Your task to perform on an android device: Play the new Drake video on YouTube Image 0: 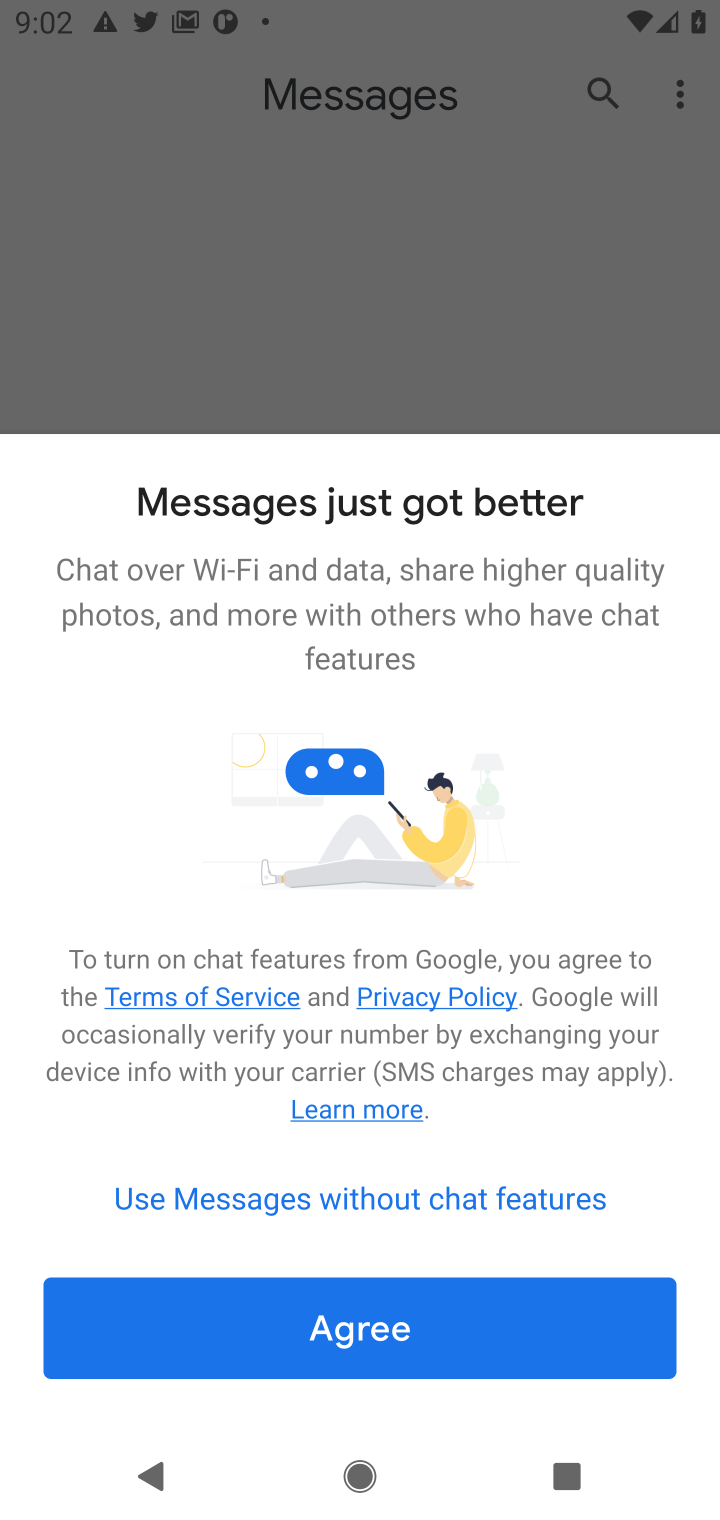
Step 0: press home button
Your task to perform on an android device: Play the new Drake video on YouTube Image 1: 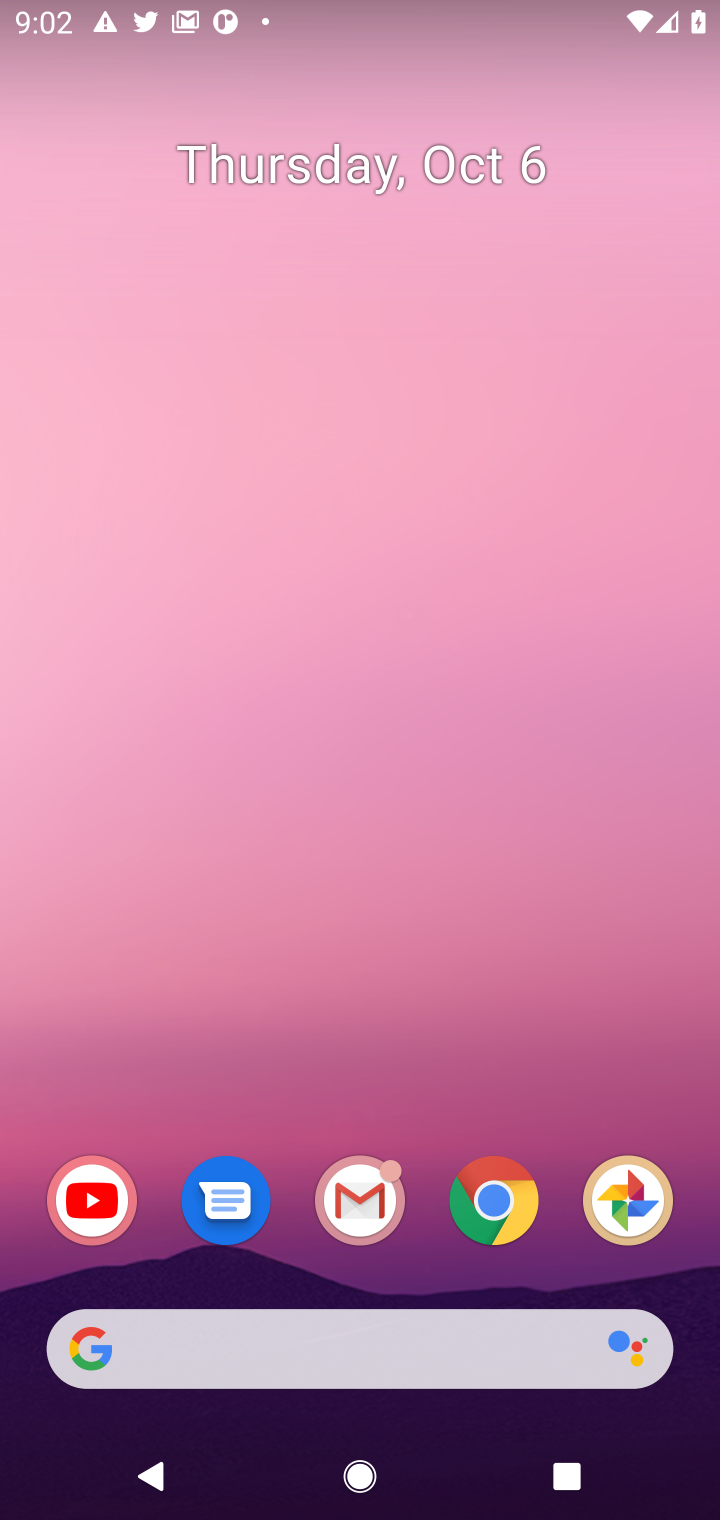
Step 1: click (479, 1187)
Your task to perform on an android device: Play the new Drake video on YouTube Image 2: 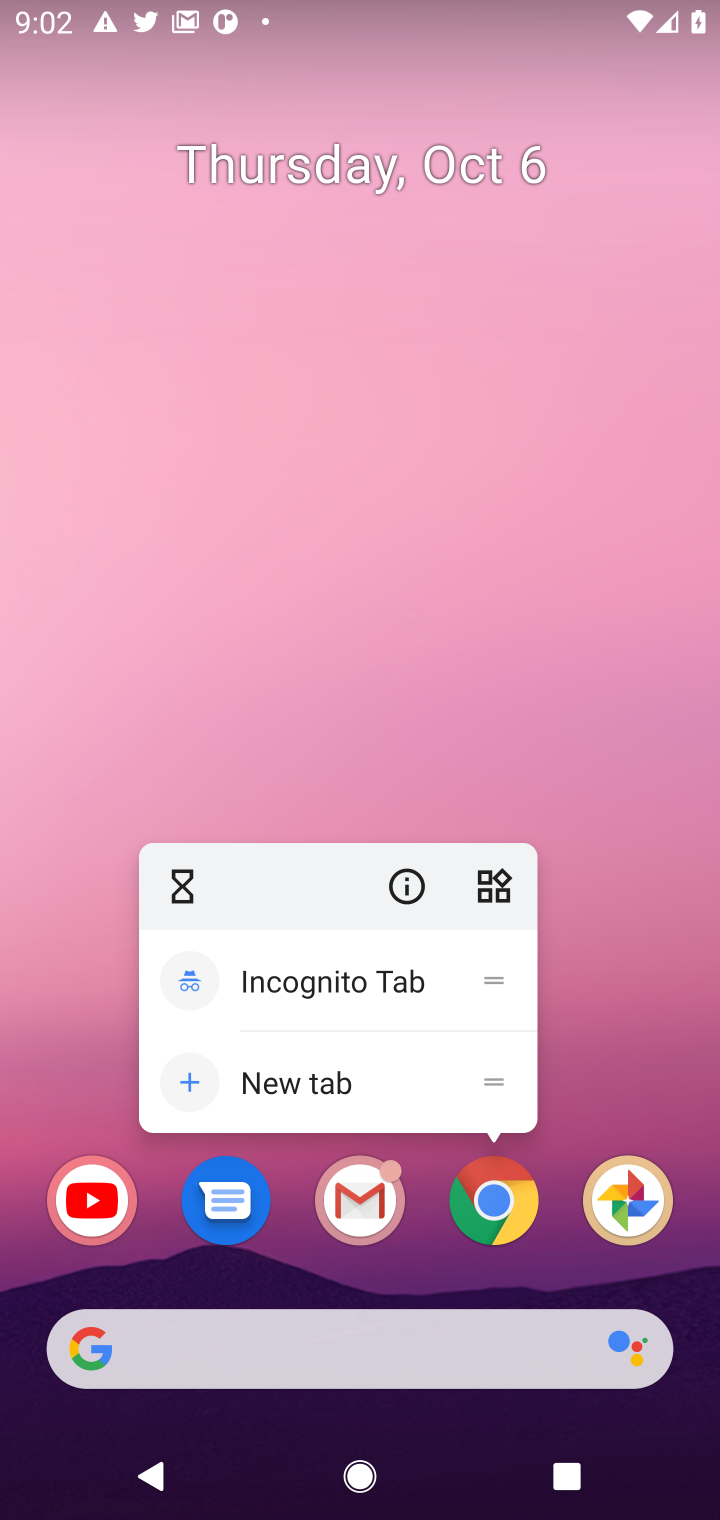
Step 2: press back button
Your task to perform on an android device: Play the new Drake video on YouTube Image 3: 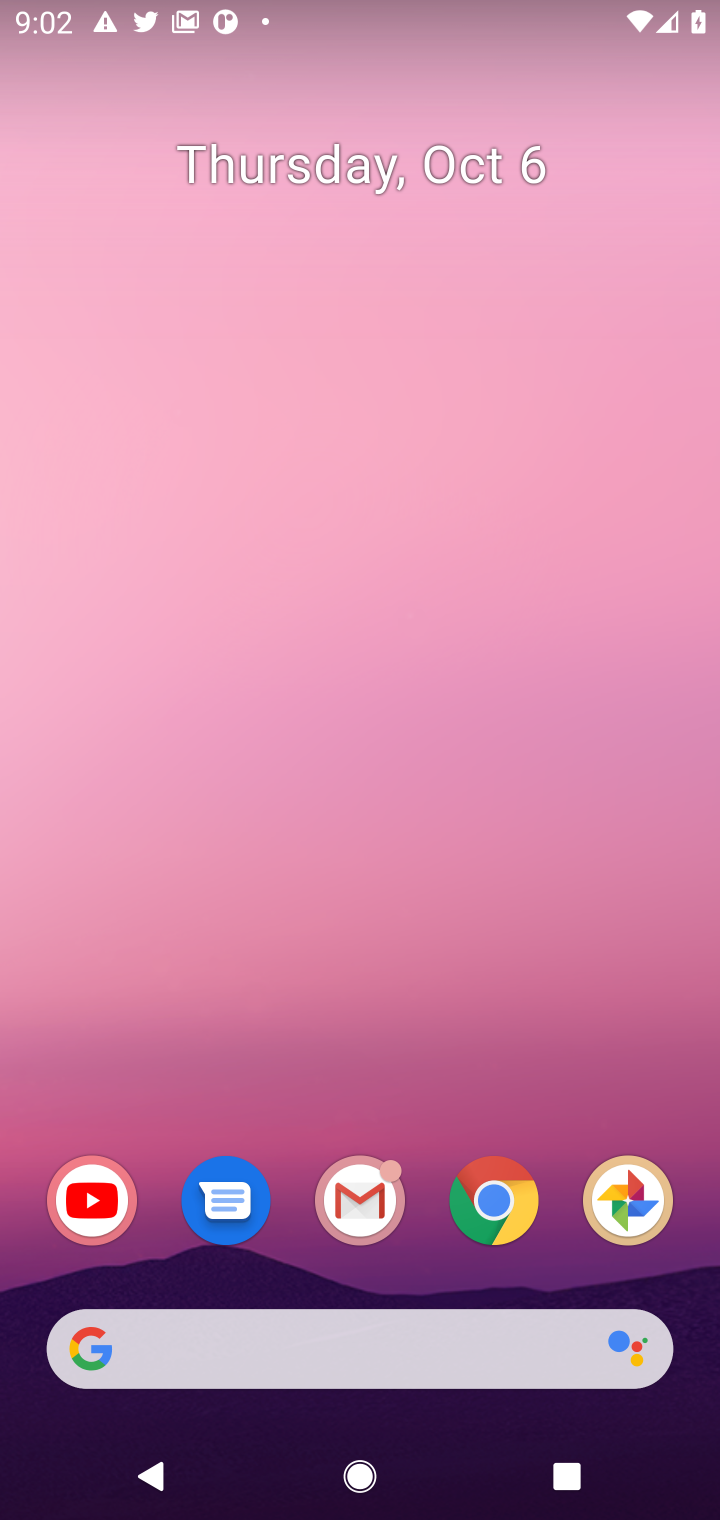
Step 3: click (530, 1228)
Your task to perform on an android device: Play the new Drake video on YouTube Image 4: 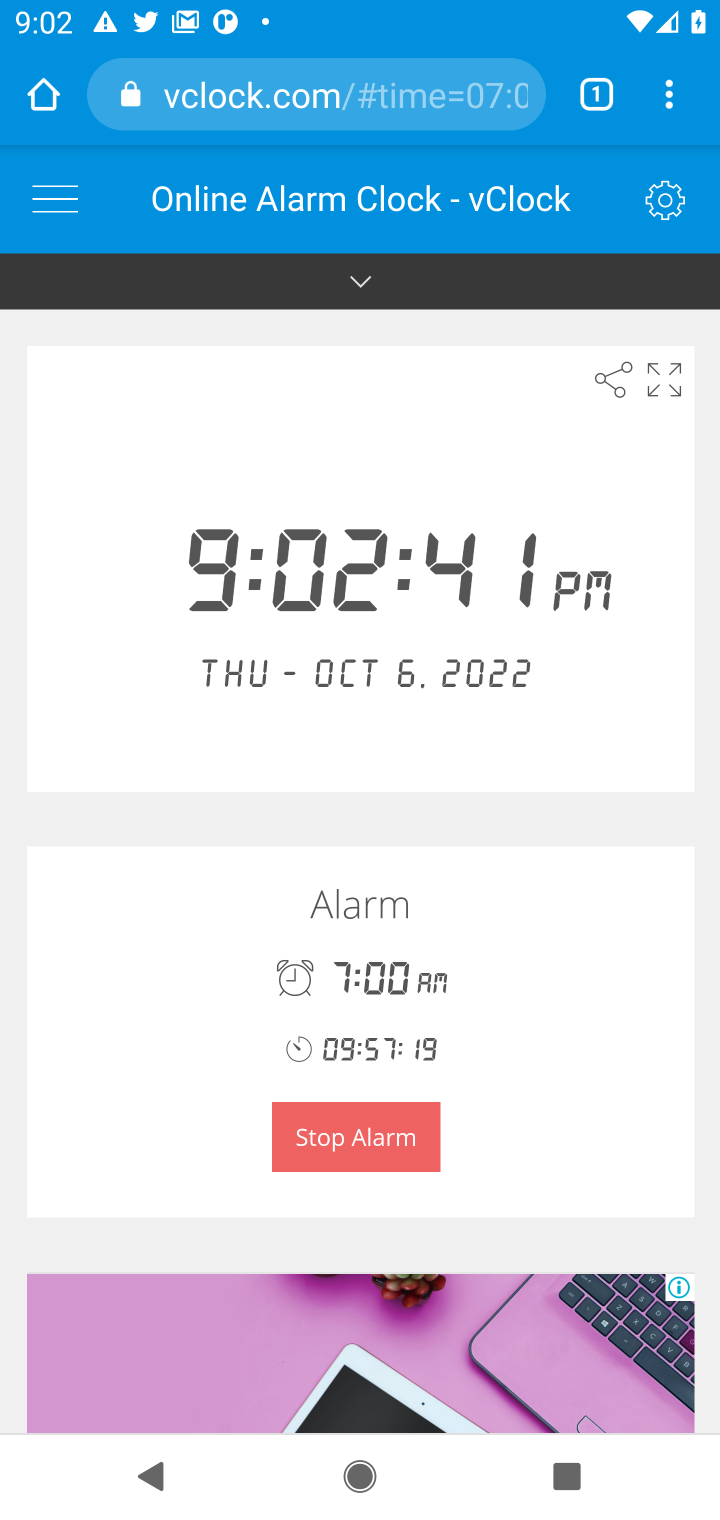
Step 4: click (371, 69)
Your task to perform on an android device: Play the new Drake video on YouTube Image 5: 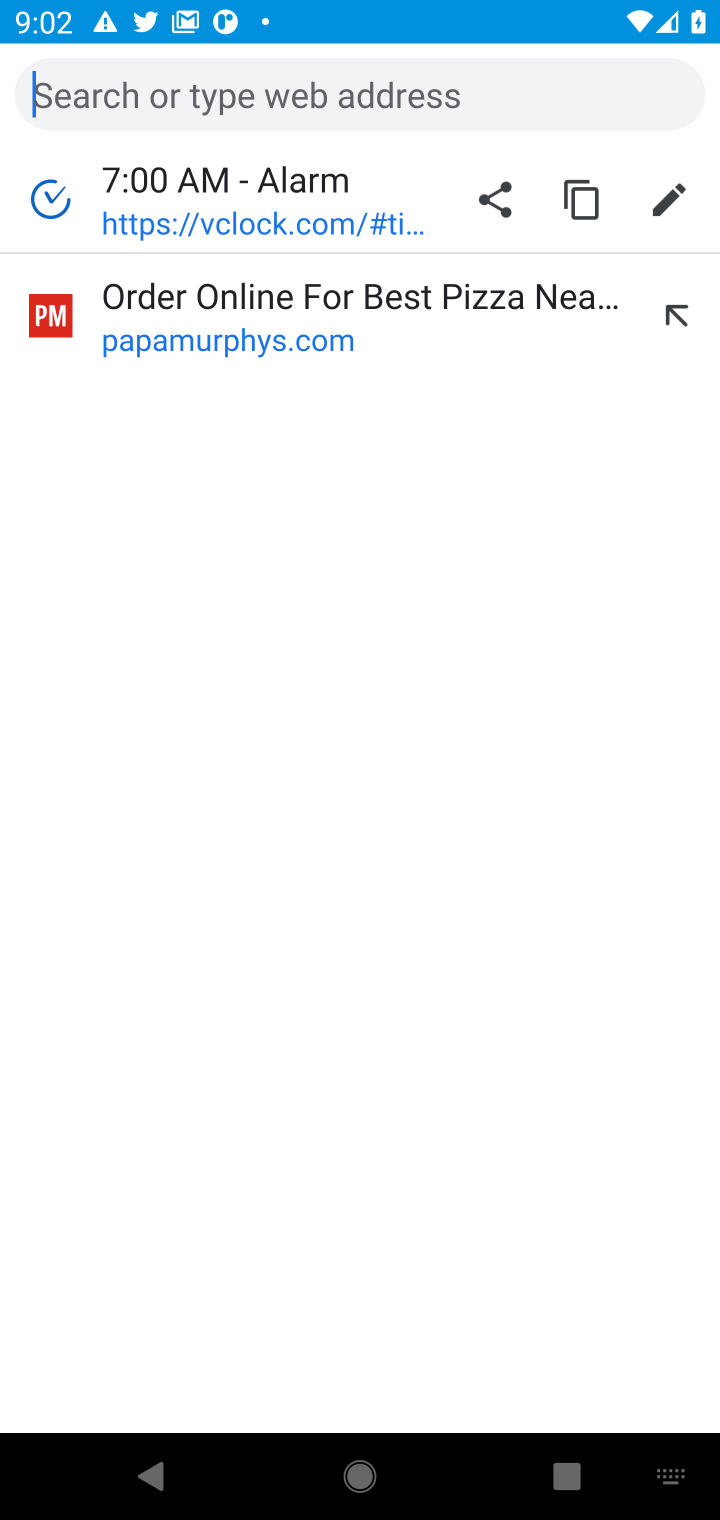
Step 5: type "youtube"
Your task to perform on an android device: Play the new Drake video on YouTube Image 6: 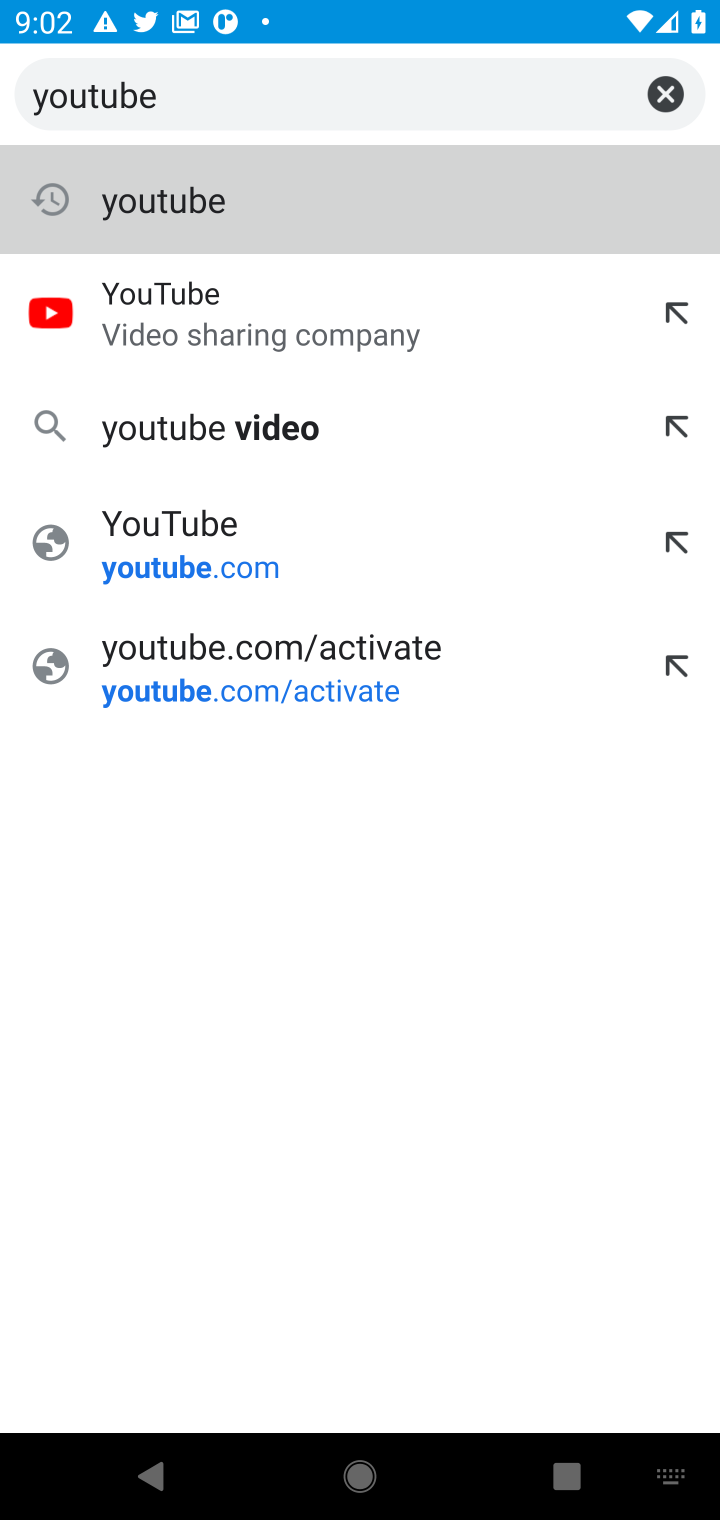
Step 6: type ""
Your task to perform on an android device: Play the new Drake video on YouTube Image 7: 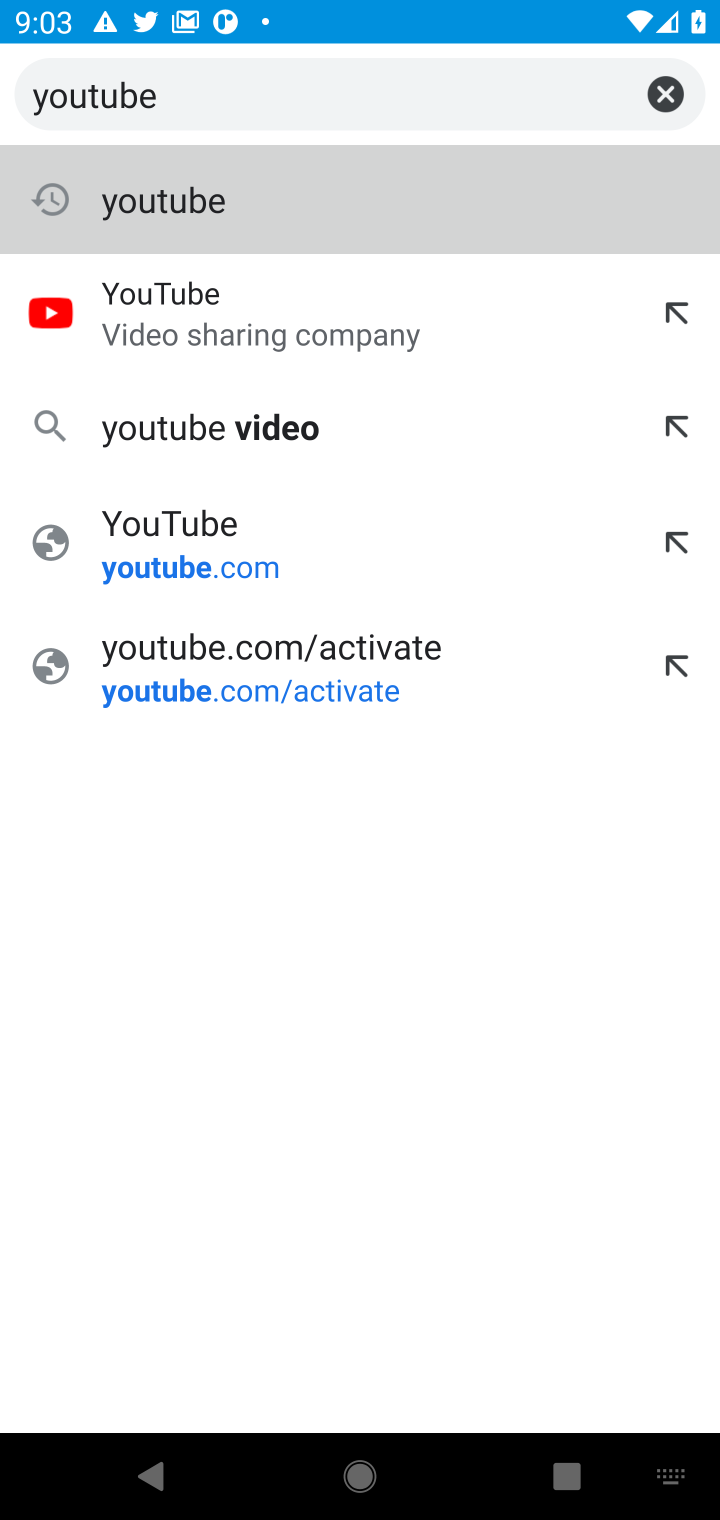
Step 7: click (286, 324)
Your task to perform on an android device: Play the new Drake video on YouTube Image 8: 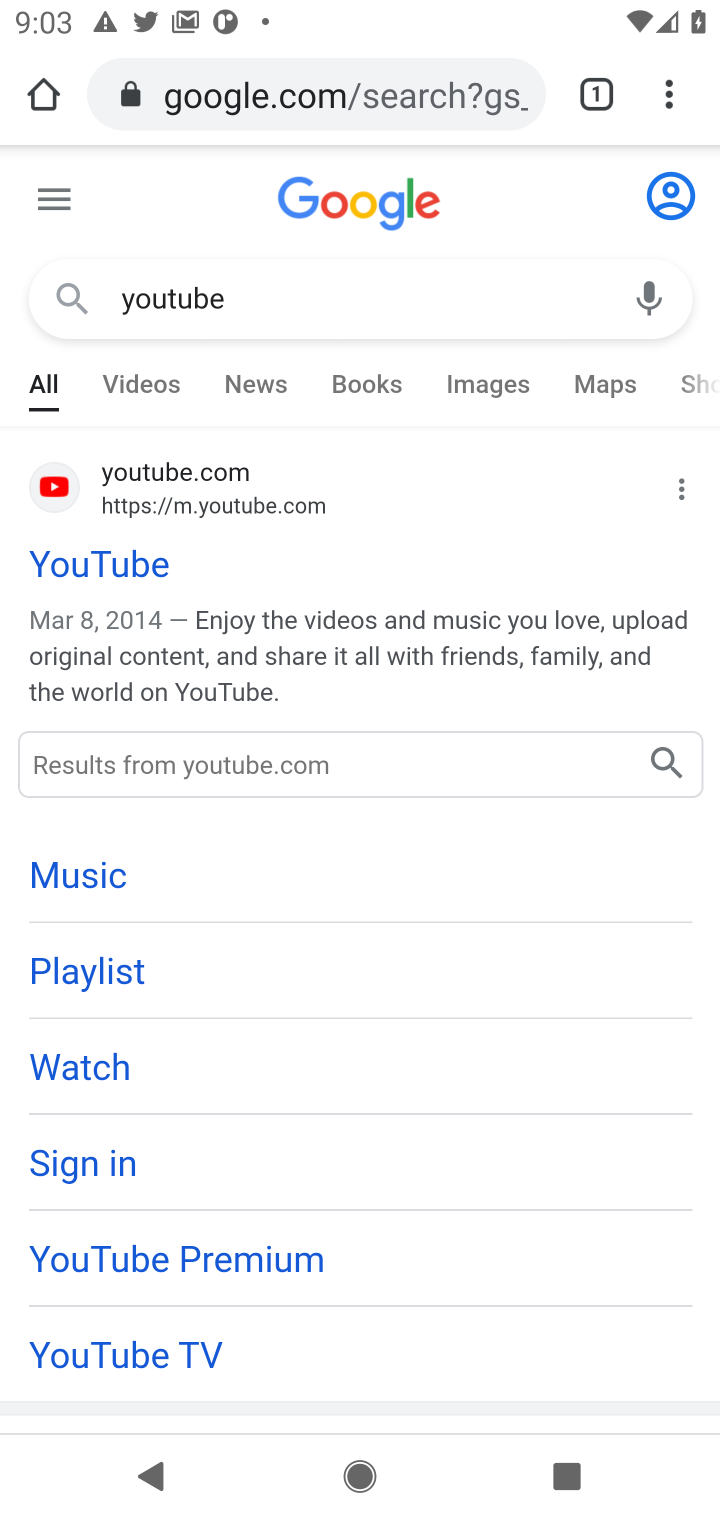
Step 8: click (124, 552)
Your task to perform on an android device: Play the new Drake video on YouTube Image 9: 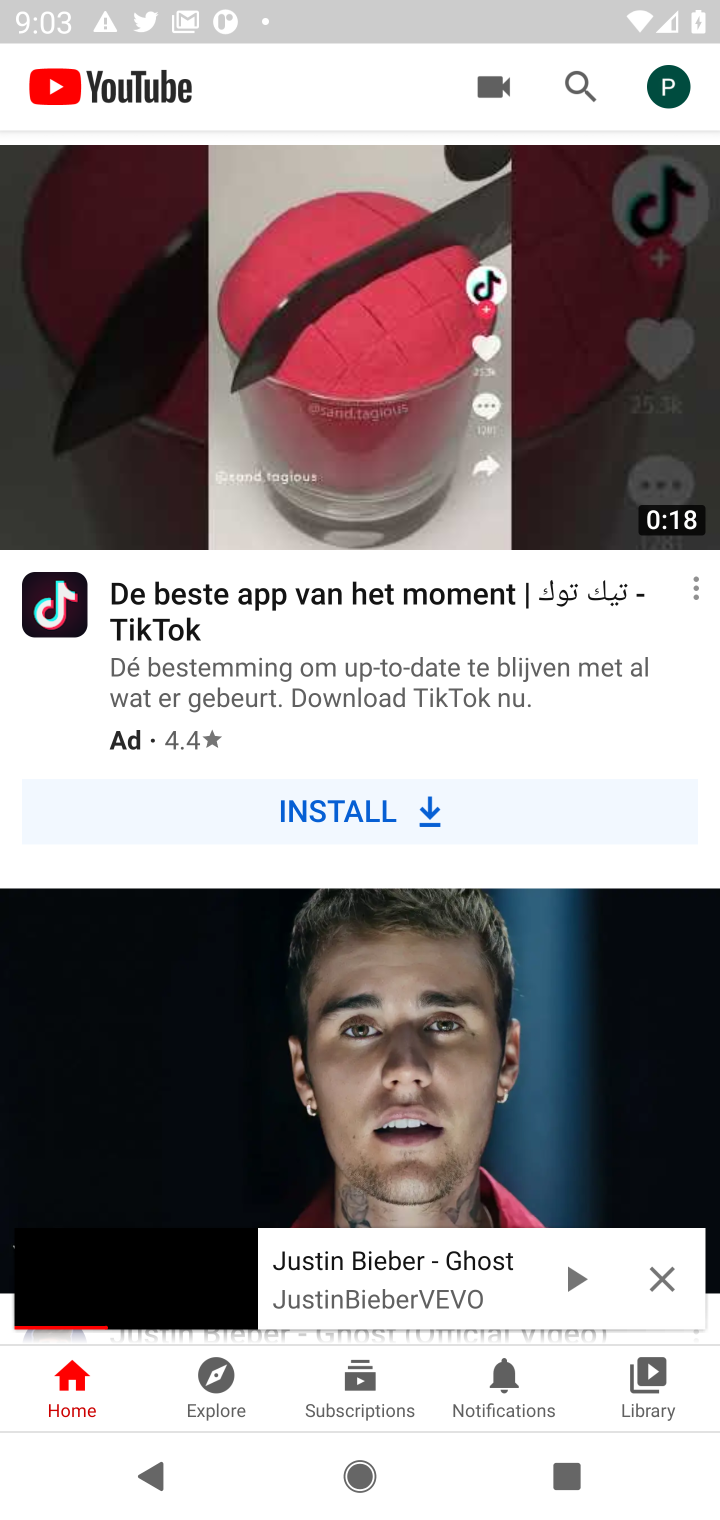
Step 9: click (580, 79)
Your task to perform on an android device: Play the new Drake video on YouTube Image 10: 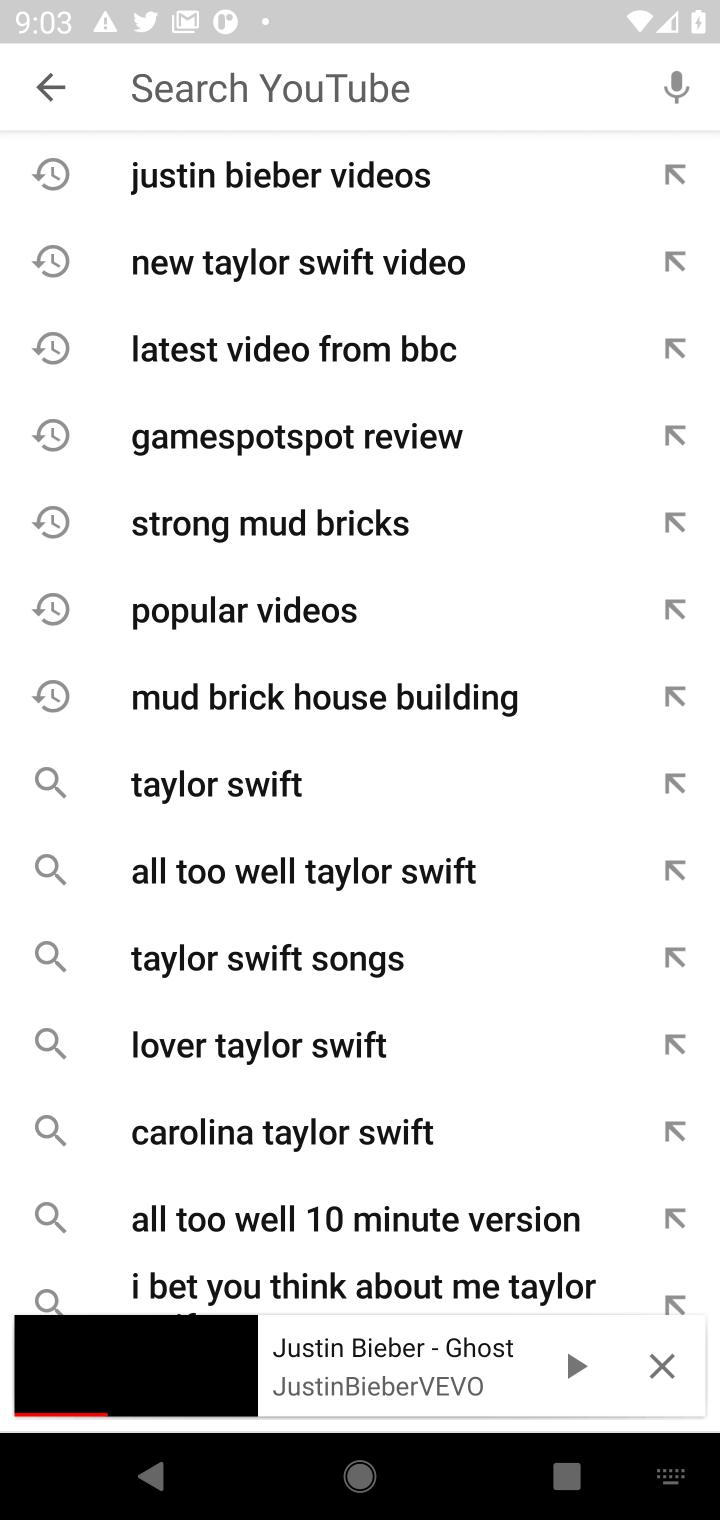
Step 10: type "new drake video"
Your task to perform on an android device: Play the new Drake video on YouTube Image 11: 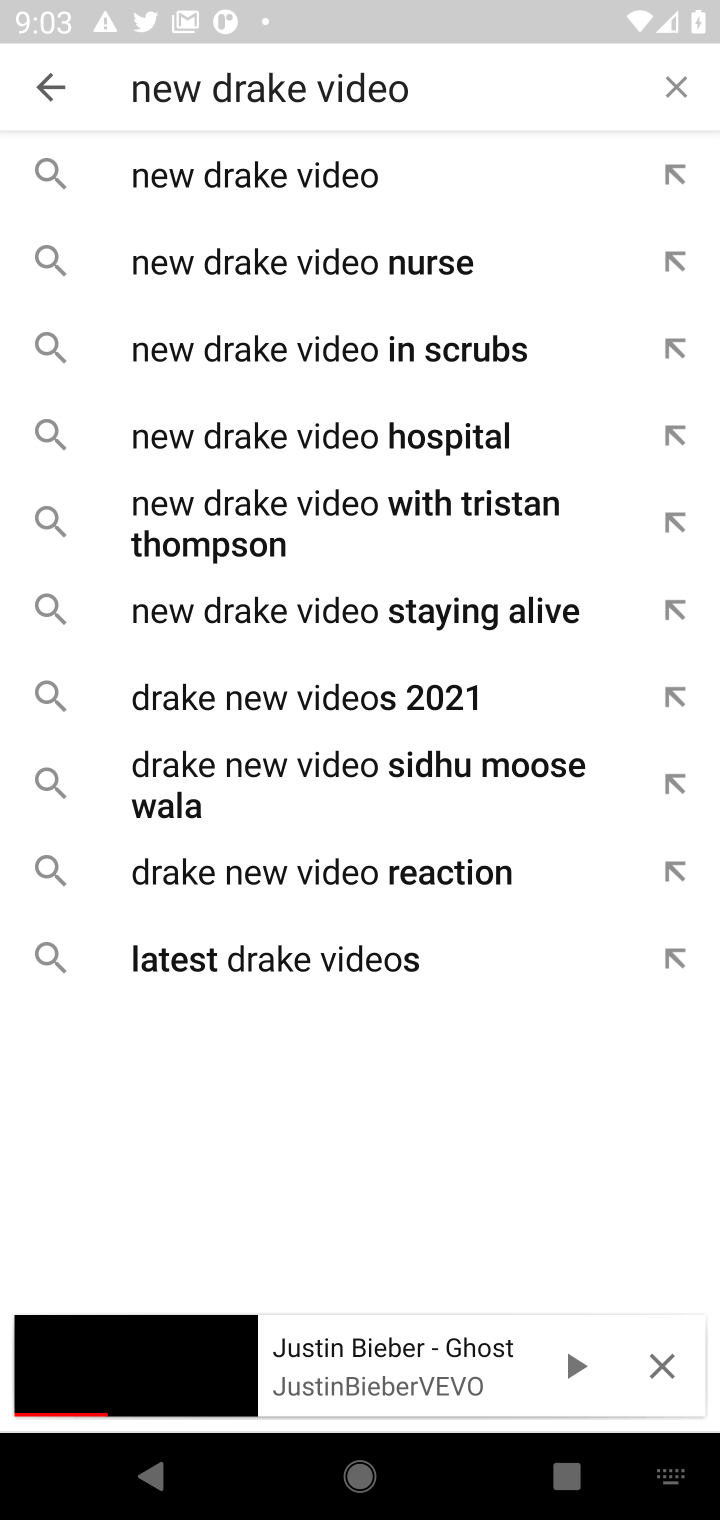
Step 11: type ""
Your task to perform on an android device: Play the new Drake video on YouTube Image 12: 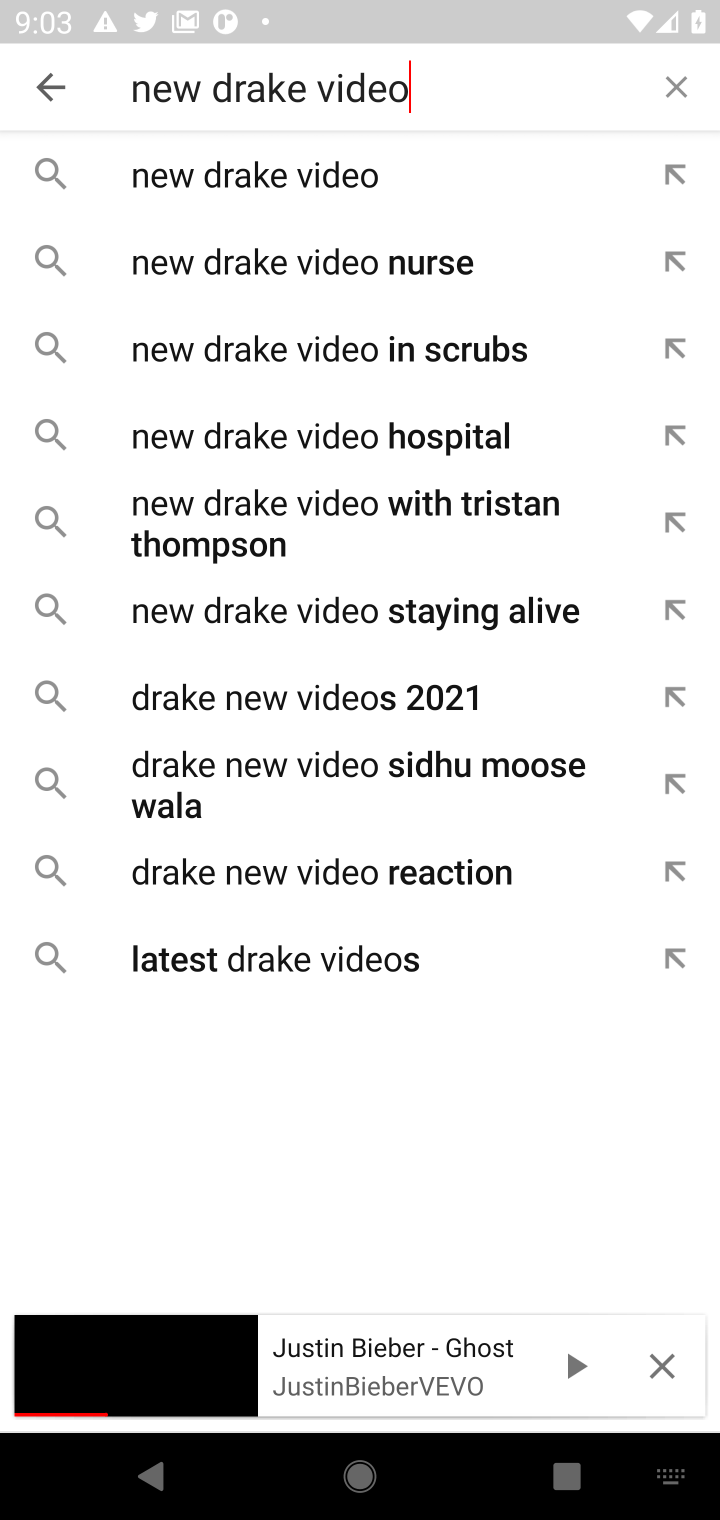
Step 12: click (237, 173)
Your task to perform on an android device: Play the new Drake video on YouTube Image 13: 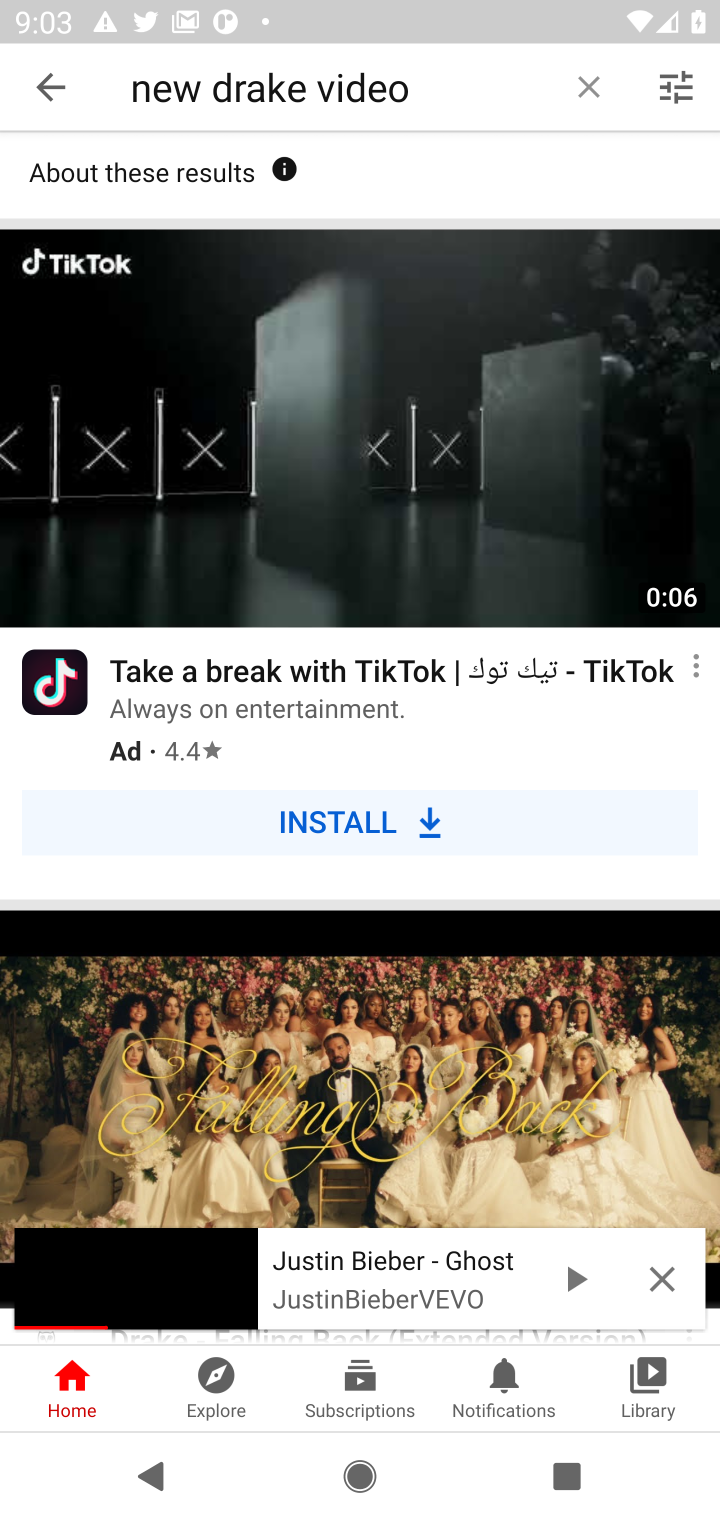
Step 13: click (661, 1274)
Your task to perform on an android device: Play the new Drake video on YouTube Image 14: 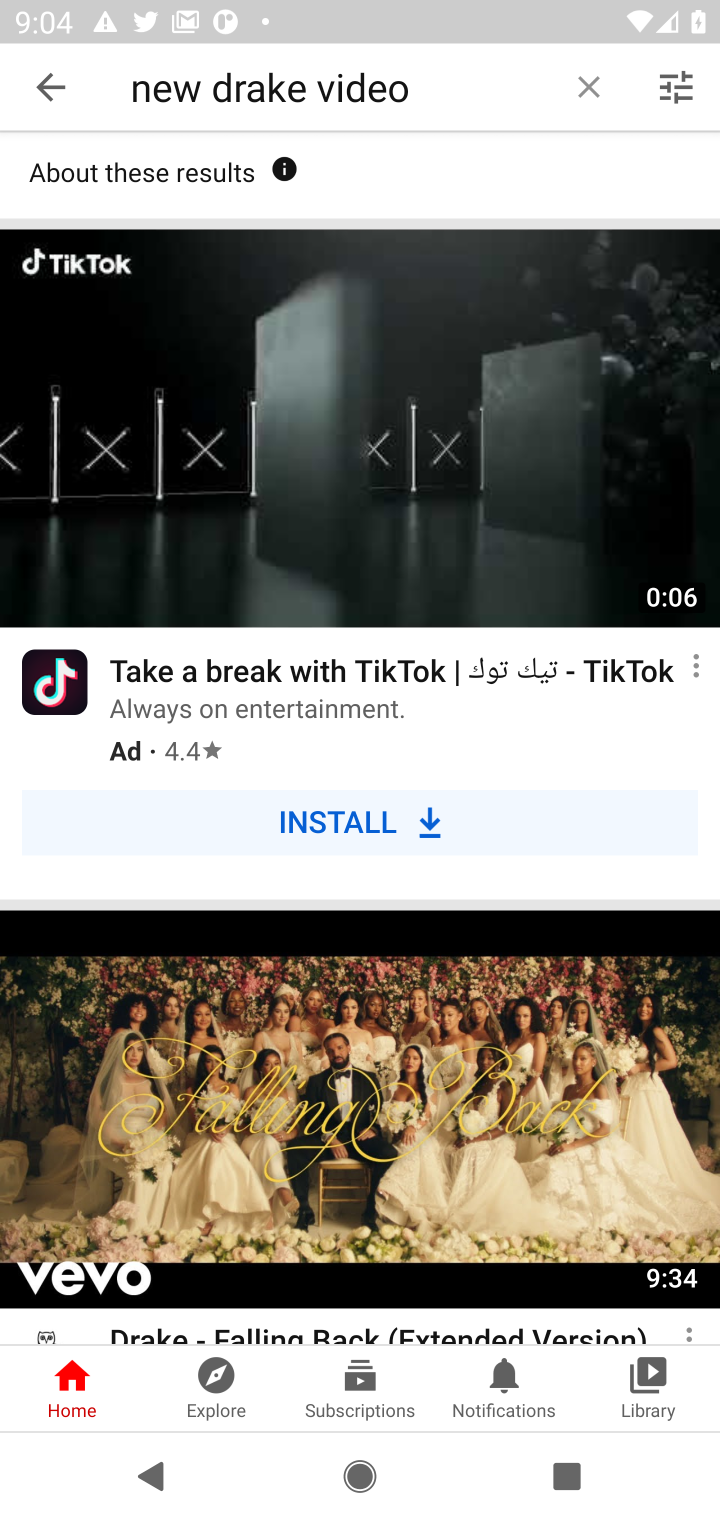
Step 14: drag from (477, 1100) to (474, 304)
Your task to perform on an android device: Play the new Drake video on YouTube Image 15: 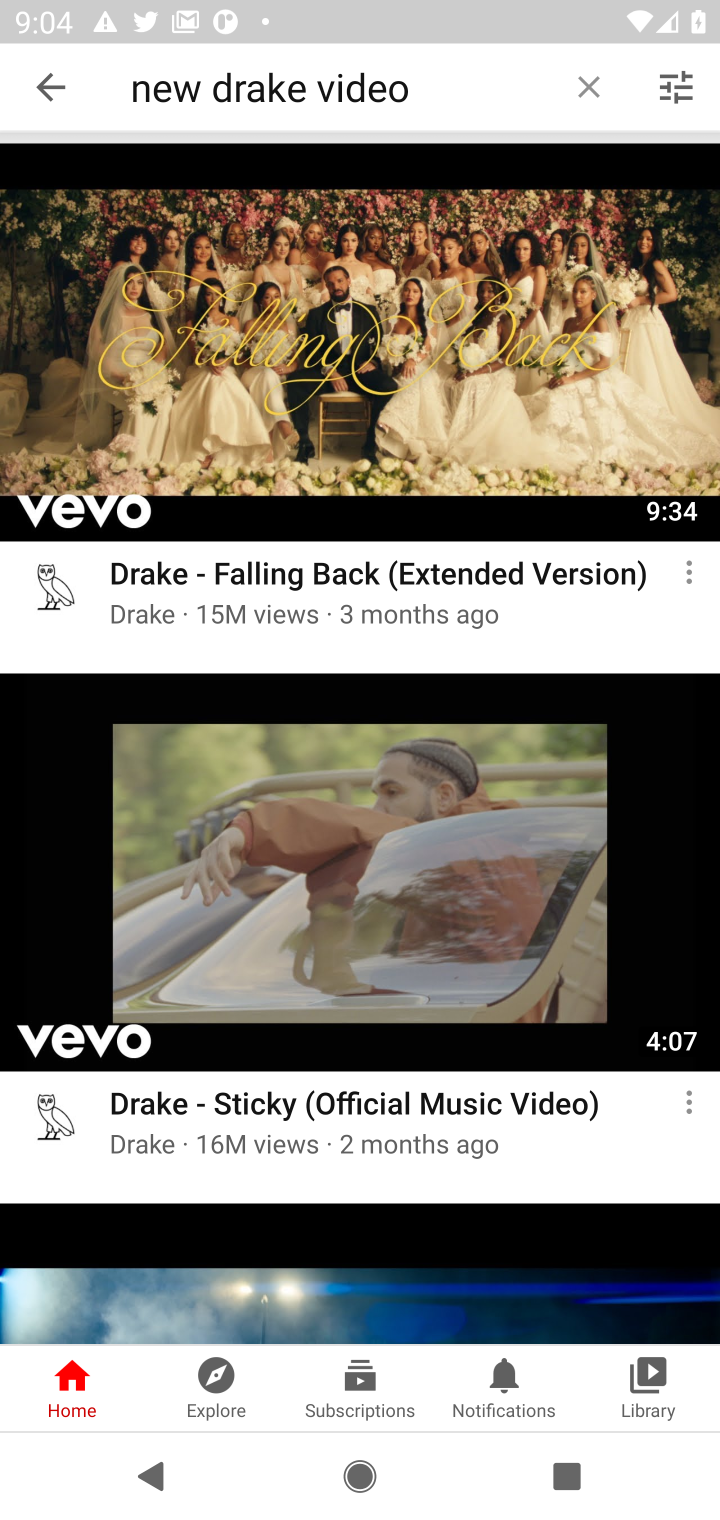
Step 15: click (342, 865)
Your task to perform on an android device: Play the new Drake video on YouTube Image 16: 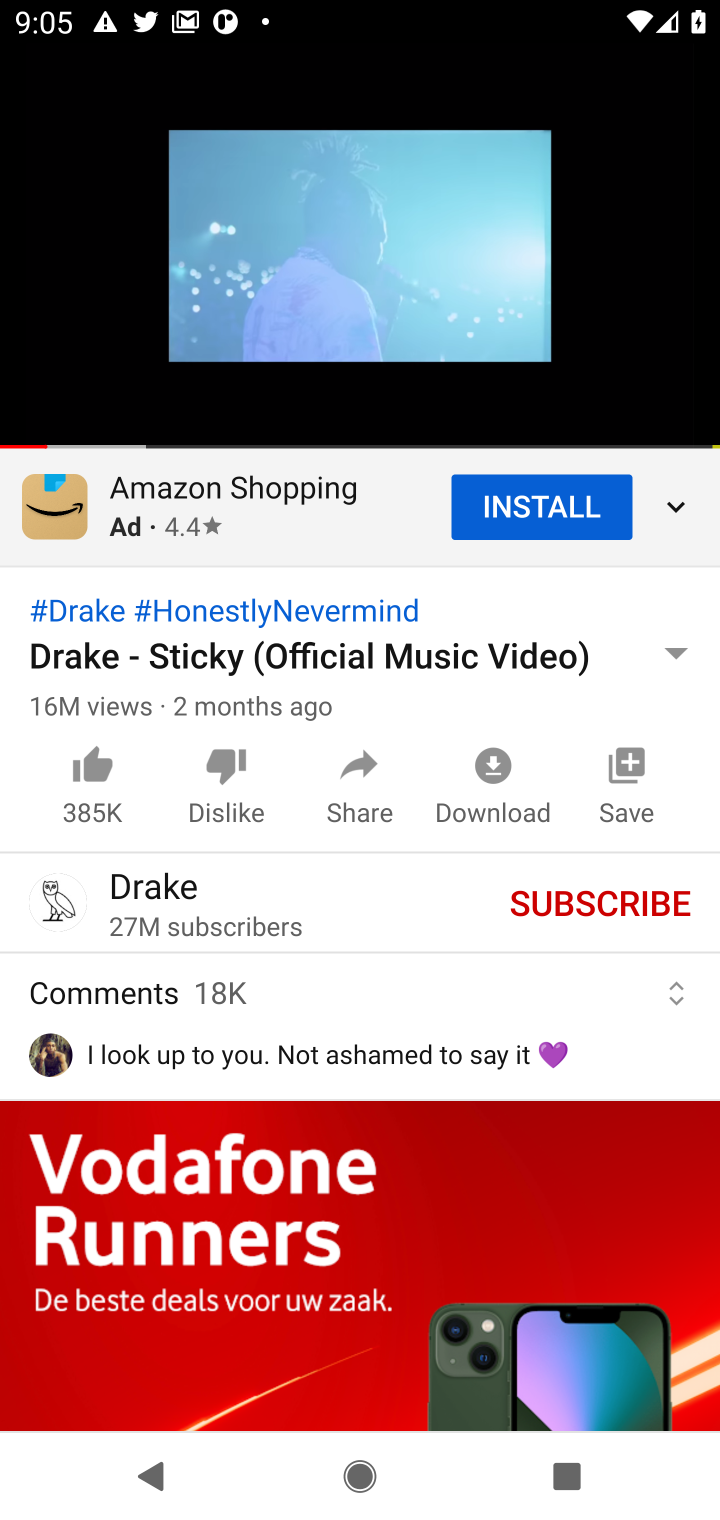
Step 16: task complete